Your task to perform on an android device: Open display settings Image 0: 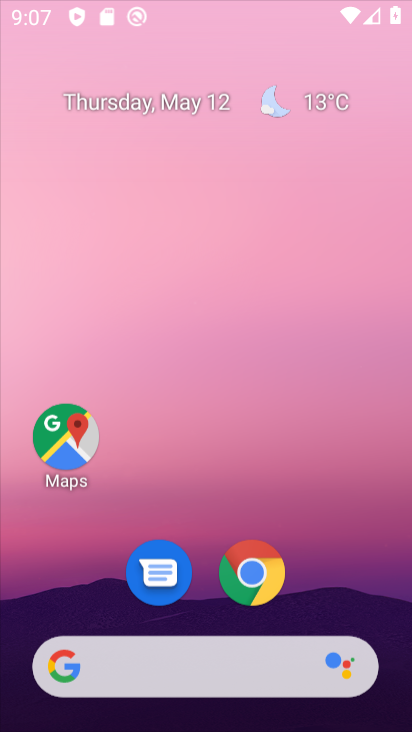
Step 0: click (258, 579)
Your task to perform on an android device: Open display settings Image 1: 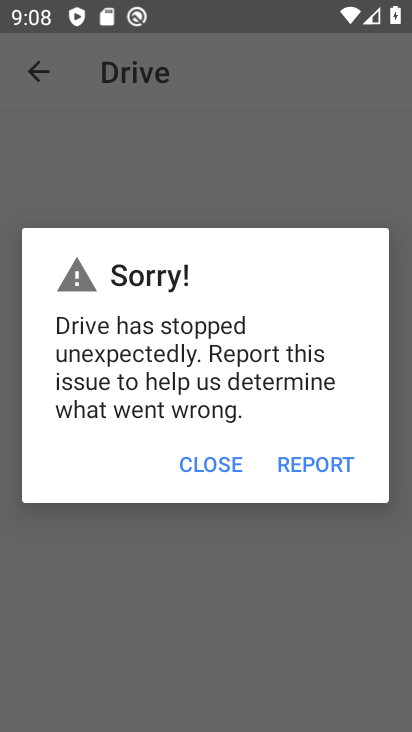
Step 1: click (216, 459)
Your task to perform on an android device: Open display settings Image 2: 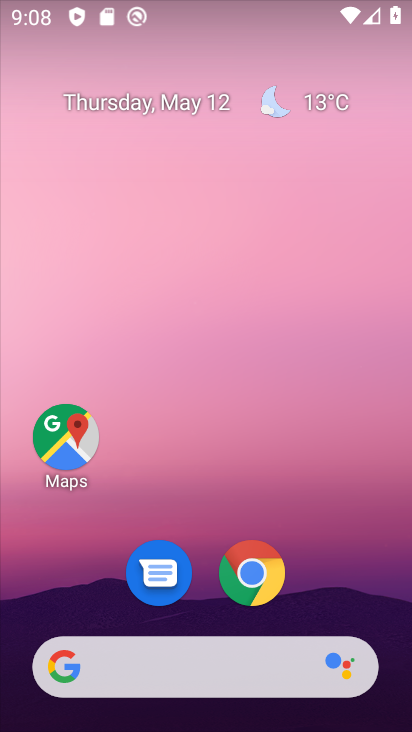
Step 2: drag from (398, 665) to (403, 219)
Your task to perform on an android device: Open display settings Image 3: 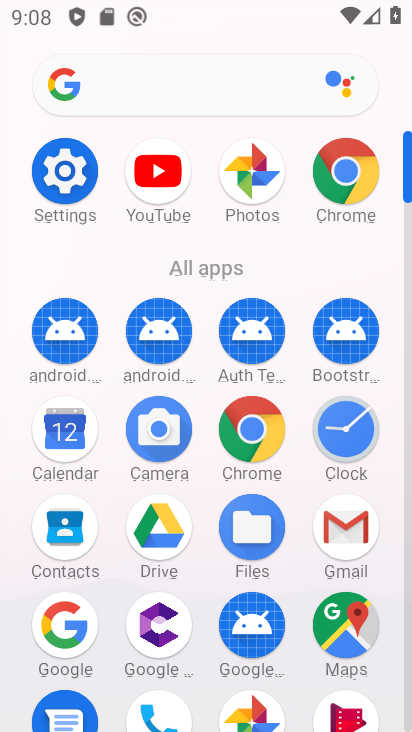
Step 3: click (75, 175)
Your task to perform on an android device: Open display settings Image 4: 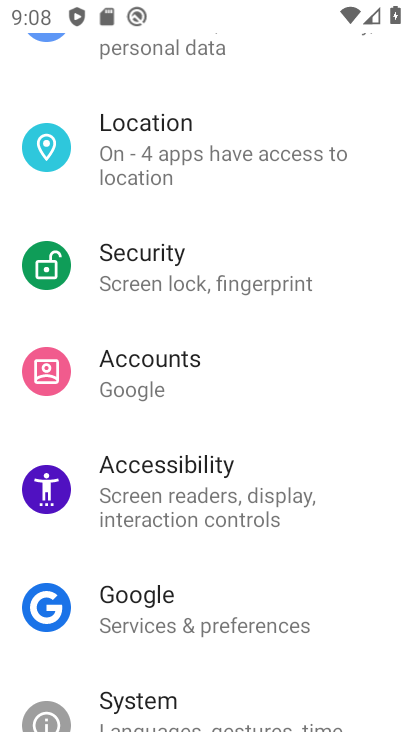
Step 4: drag from (297, 311) to (279, 722)
Your task to perform on an android device: Open display settings Image 5: 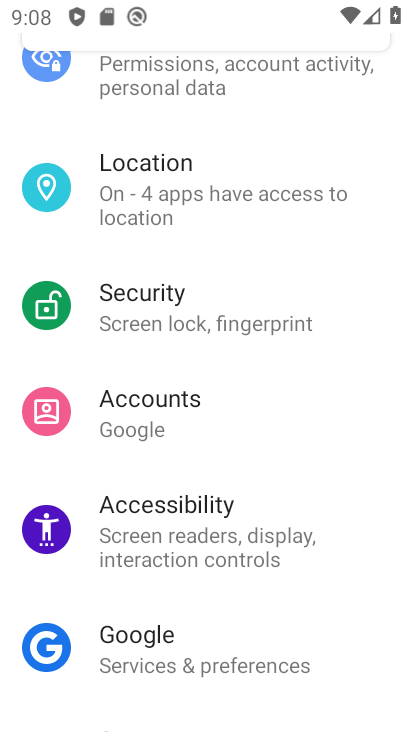
Step 5: click (402, 501)
Your task to perform on an android device: Open display settings Image 6: 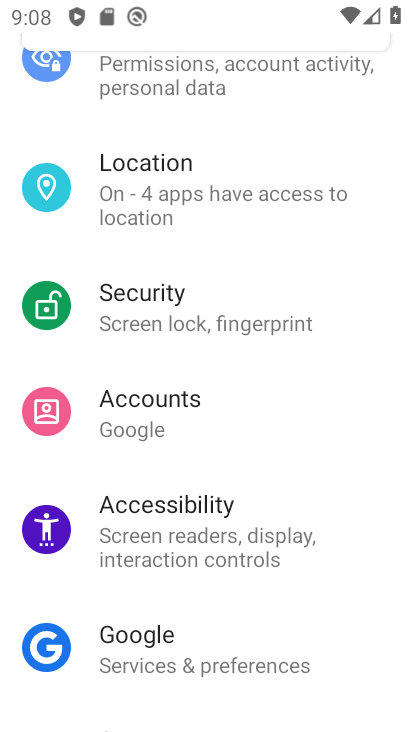
Step 6: drag from (332, 147) to (375, 660)
Your task to perform on an android device: Open display settings Image 7: 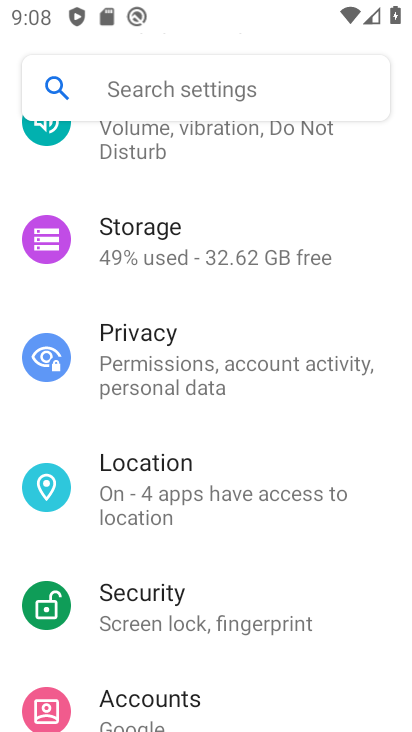
Step 7: drag from (372, 201) to (411, 519)
Your task to perform on an android device: Open display settings Image 8: 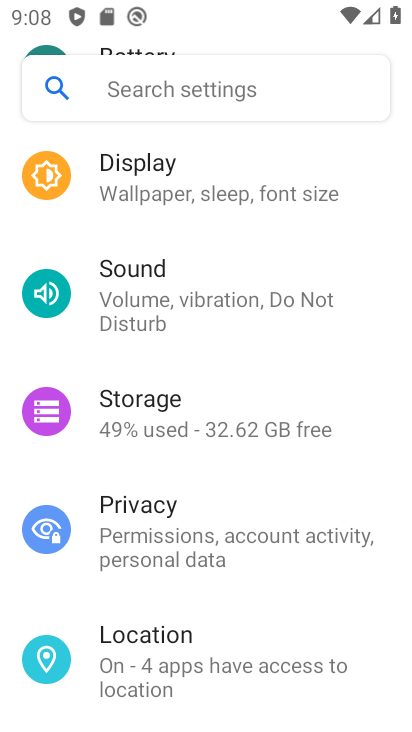
Step 8: drag from (351, 202) to (328, 536)
Your task to perform on an android device: Open display settings Image 9: 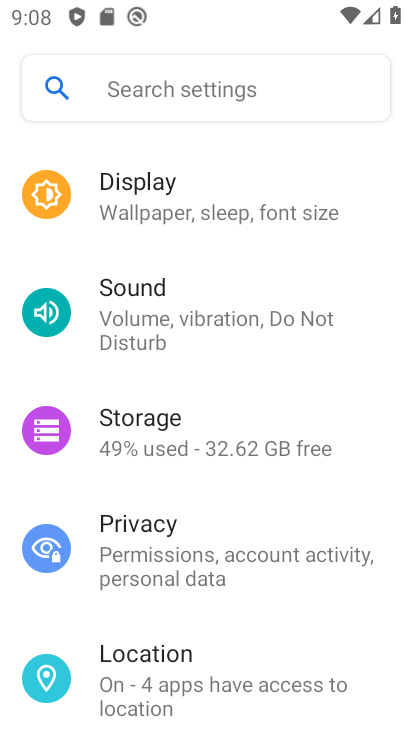
Step 9: click (137, 172)
Your task to perform on an android device: Open display settings Image 10: 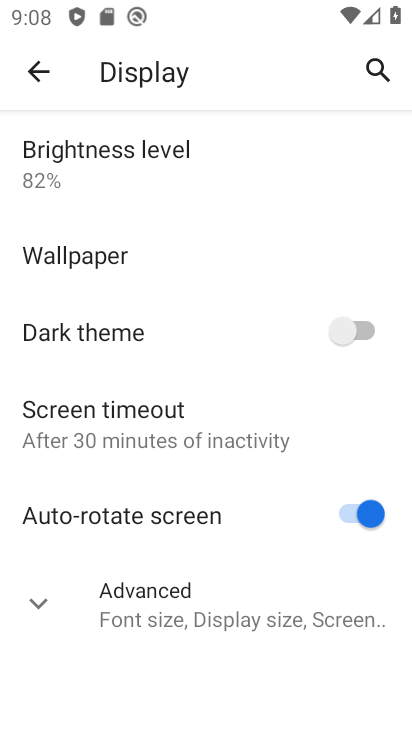
Step 10: task complete